Your task to perform on an android device: Open the stopwatch Image 0: 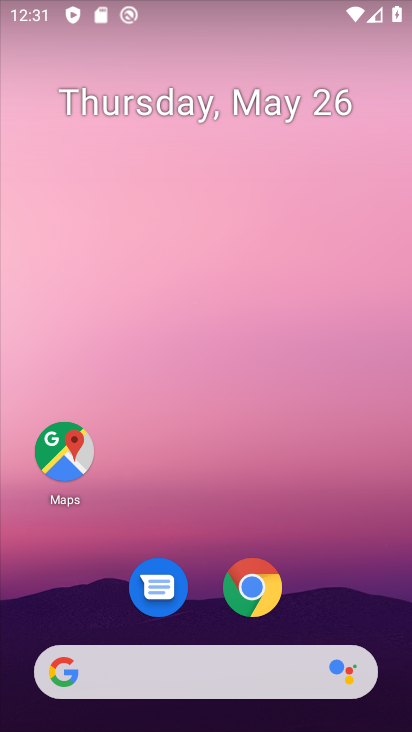
Step 0: drag from (385, 604) to (369, 255)
Your task to perform on an android device: Open the stopwatch Image 1: 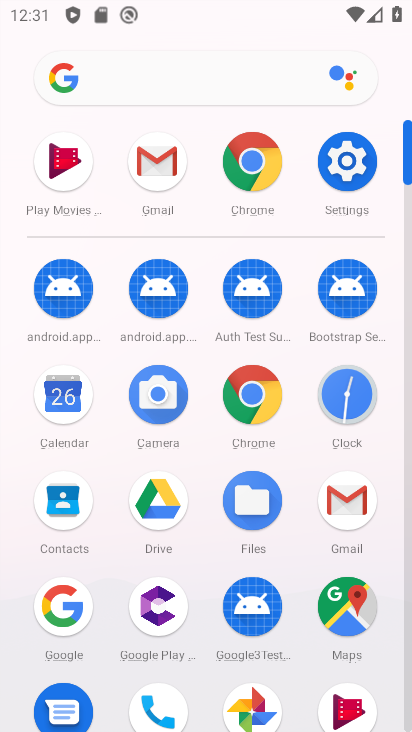
Step 1: click (353, 404)
Your task to perform on an android device: Open the stopwatch Image 2: 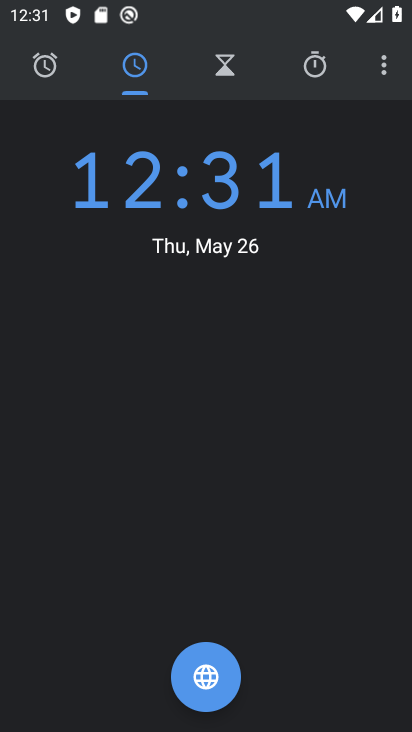
Step 2: click (310, 62)
Your task to perform on an android device: Open the stopwatch Image 3: 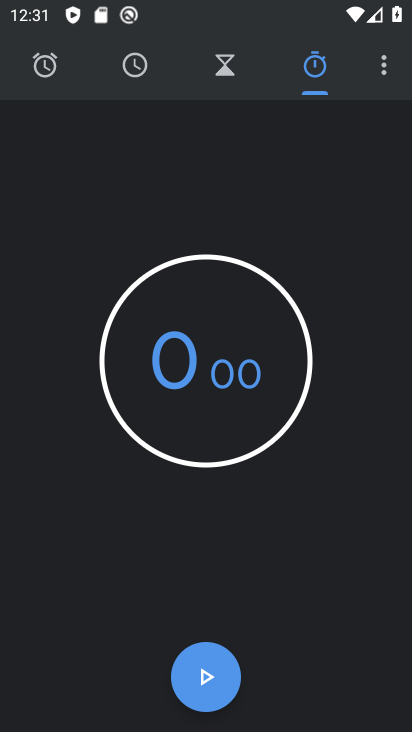
Step 3: task complete